Your task to perform on an android device: Open settings on Google Maps Image 0: 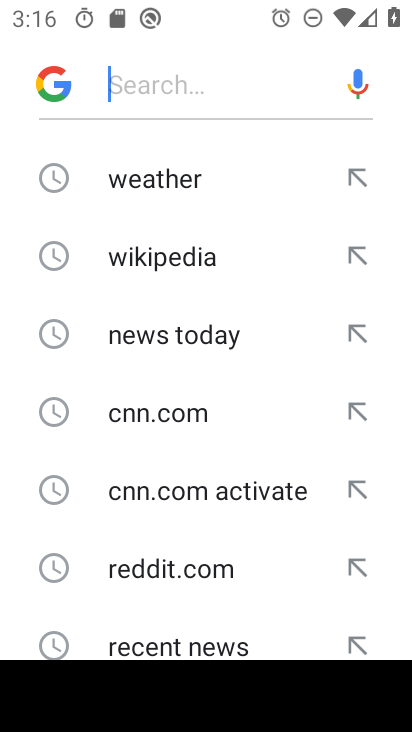
Step 0: press home button
Your task to perform on an android device: Open settings on Google Maps Image 1: 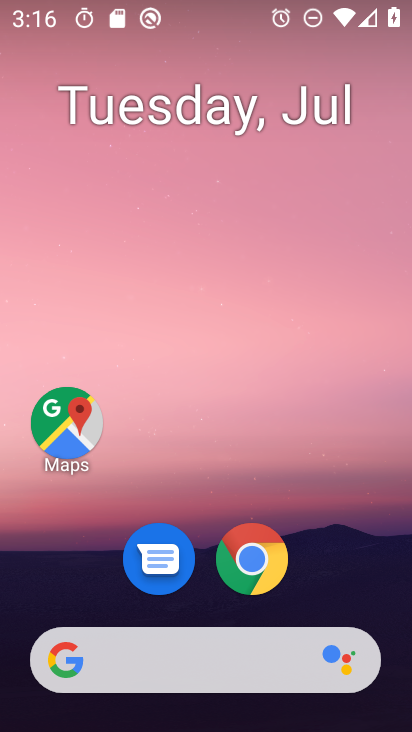
Step 1: drag from (344, 578) to (370, 109)
Your task to perform on an android device: Open settings on Google Maps Image 2: 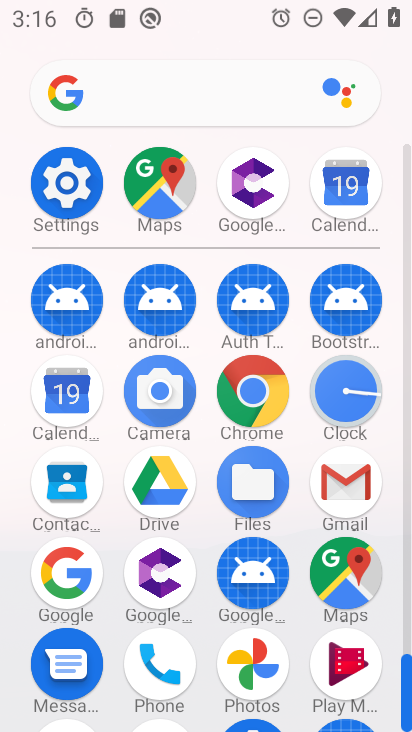
Step 2: click (165, 199)
Your task to perform on an android device: Open settings on Google Maps Image 3: 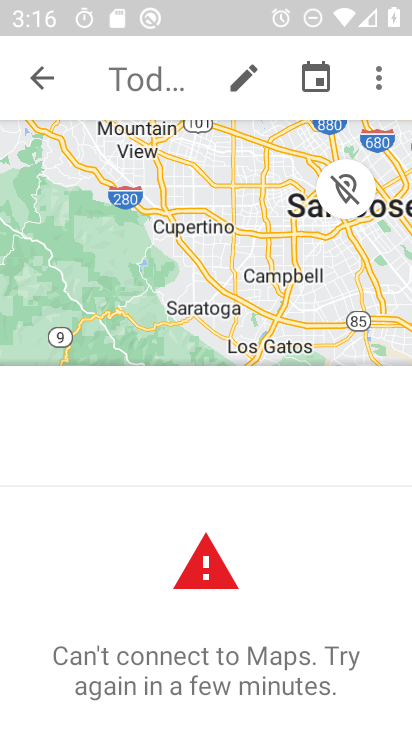
Step 3: click (165, 199)
Your task to perform on an android device: Open settings on Google Maps Image 4: 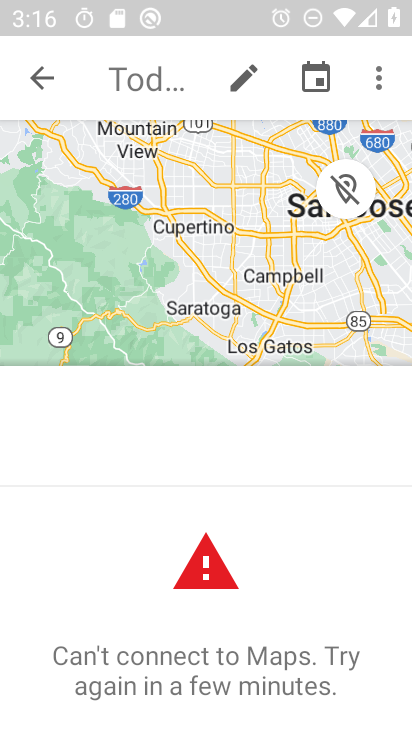
Step 4: press back button
Your task to perform on an android device: Open settings on Google Maps Image 5: 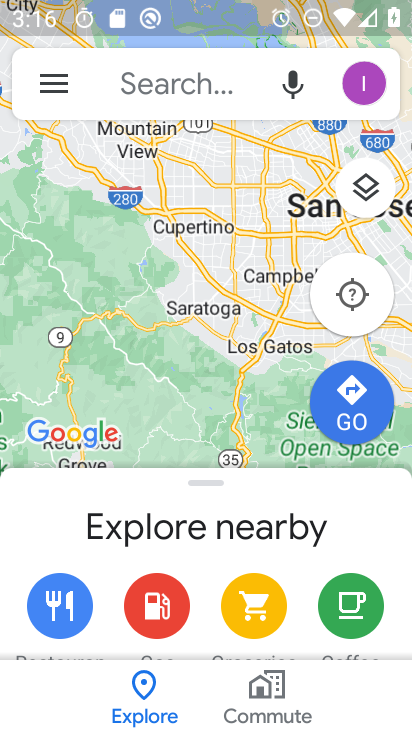
Step 5: click (56, 85)
Your task to perform on an android device: Open settings on Google Maps Image 6: 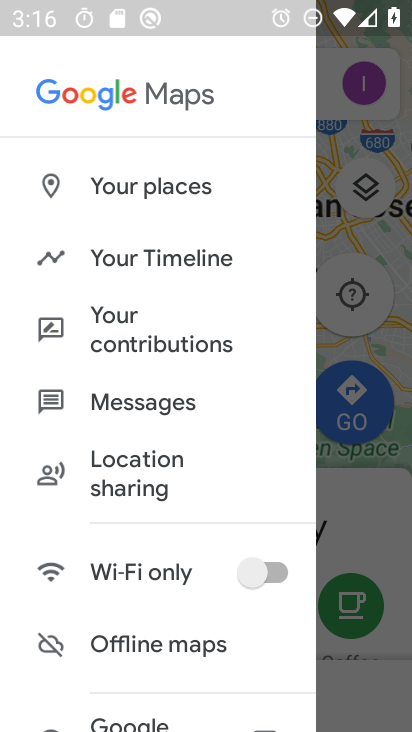
Step 6: drag from (261, 429) to (275, 343)
Your task to perform on an android device: Open settings on Google Maps Image 7: 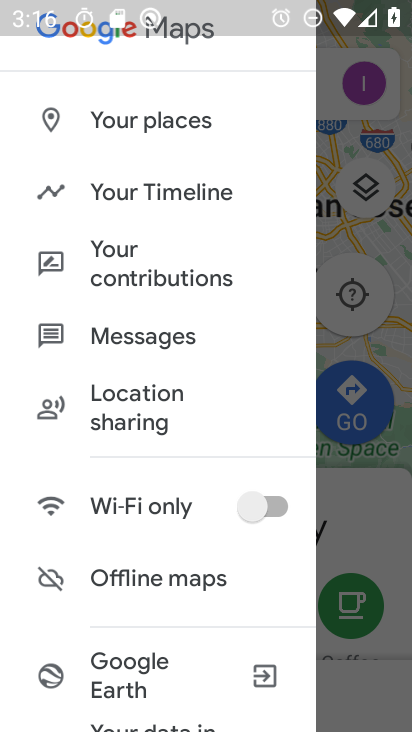
Step 7: drag from (250, 429) to (255, 326)
Your task to perform on an android device: Open settings on Google Maps Image 8: 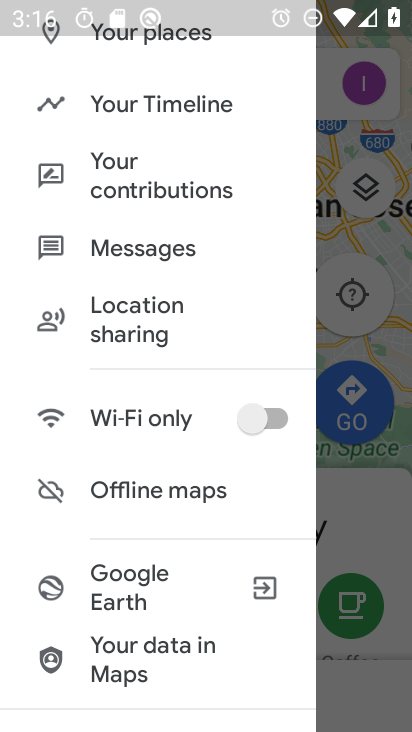
Step 8: drag from (228, 526) to (228, 365)
Your task to perform on an android device: Open settings on Google Maps Image 9: 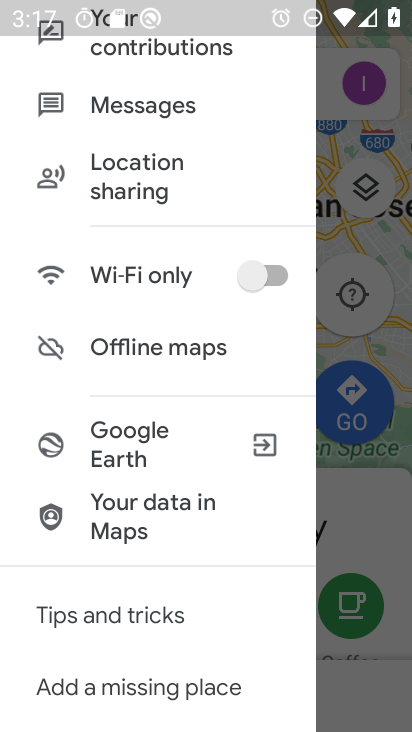
Step 9: drag from (202, 580) to (220, 394)
Your task to perform on an android device: Open settings on Google Maps Image 10: 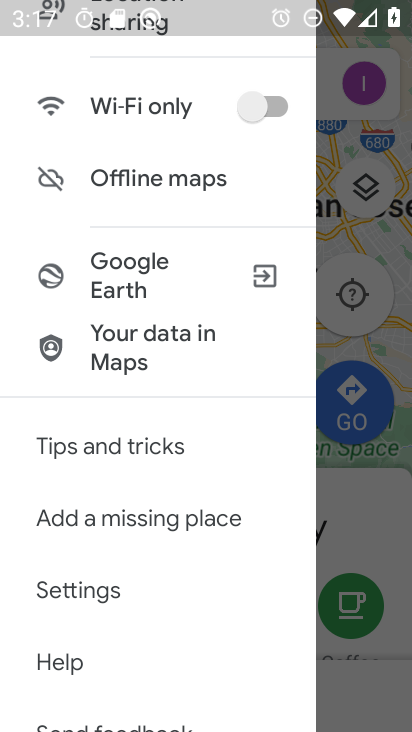
Step 10: click (124, 608)
Your task to perform on an android device: Open settings on Google Maps Image 11: 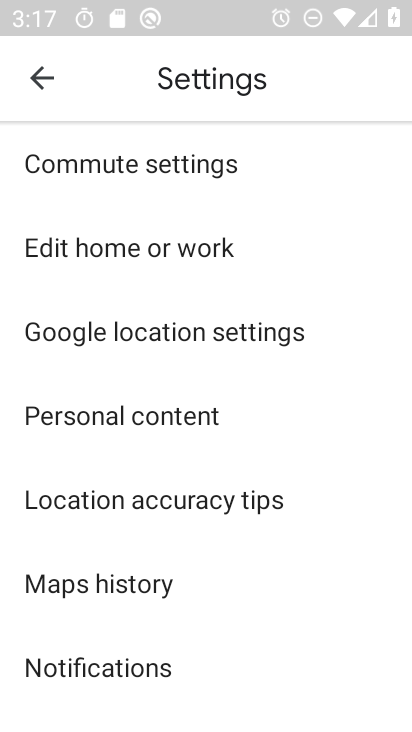
Step 11: task complete